Your task to perform on an android device: Open calendar and show me the third week of next month Image 0: 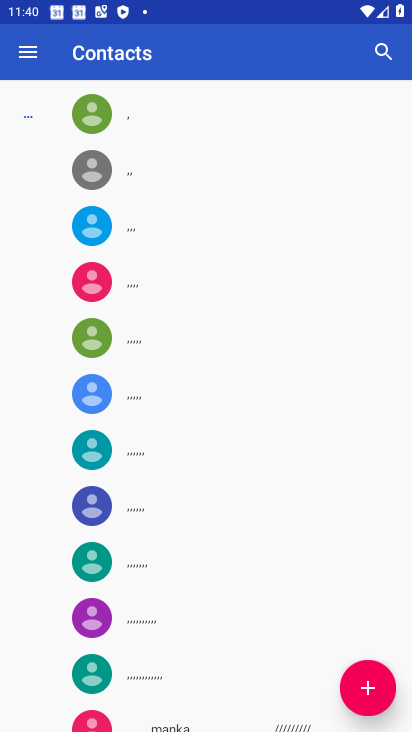
Step 0: press home button
Your task to perform on an android device: Open calendar and show me the third week of next month Image 1: 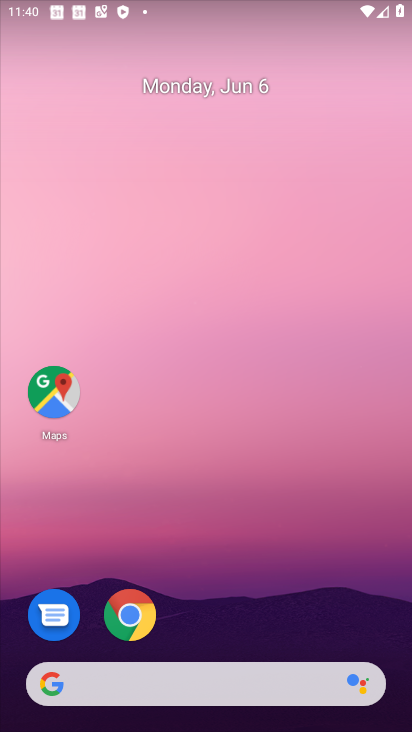
Step 1: drag from (333, 625) to (268, 203)
Your task to perform on an android device: Open calendar and show me the third week of next month Image 2: 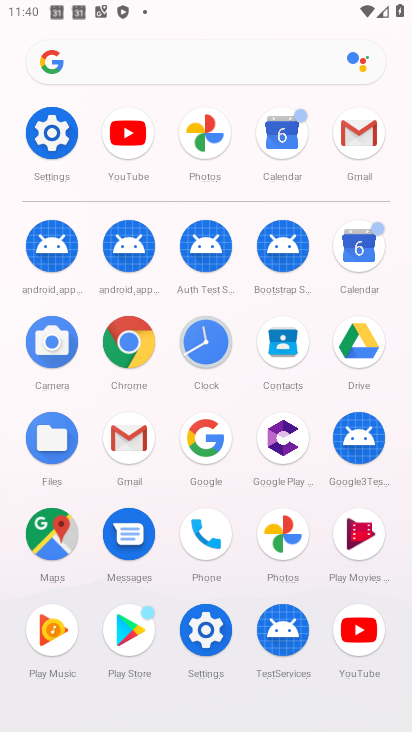
Step 2: click (281, 161)
Your task to perform on an android device: Open calendar and show me the third week of next month Image 3: 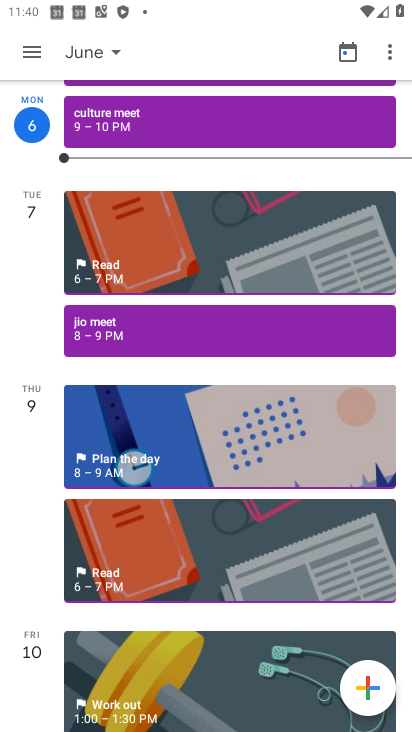
Step 3: task complete